Your task to perform on an android device: Open Chrome and go to the settings page Image 0: 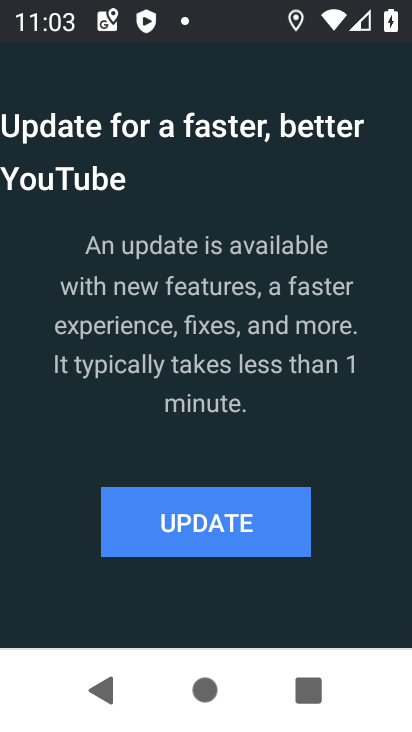
Step 0: press home button
Your task to perform on an android device: Open Chrome and go to the settings page Image 1: 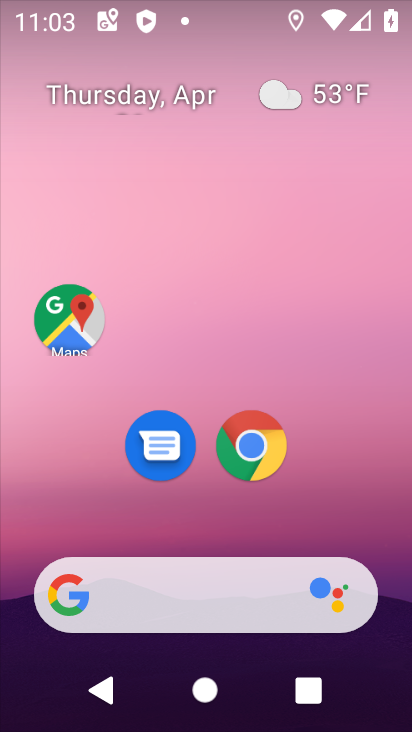
Step 1: drag from (226, 575) to (324, 51)
Your task to perform on an android device: Open Chrome and go to the settings page Image 2: 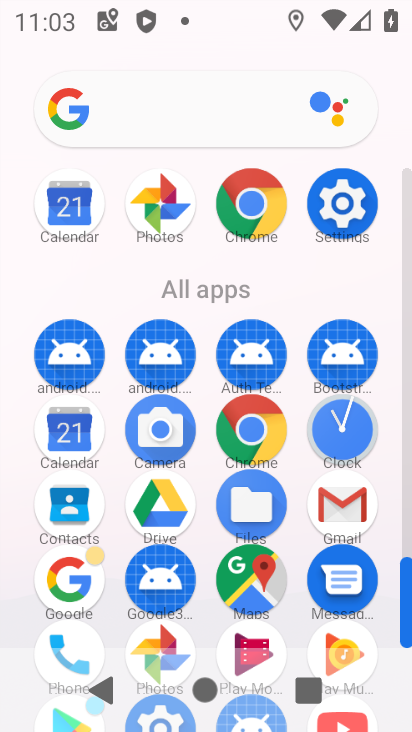
Step 2: click (260, 215)
Your task to perform on an android device: Open Chrome and go to the settings page Image 3: 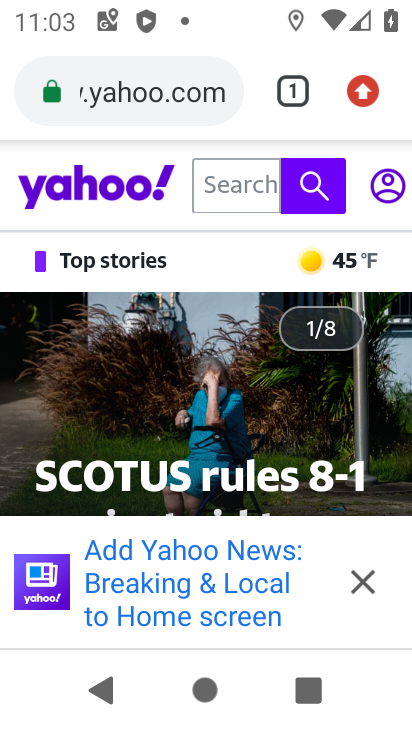
Step 3: click (358, 112)
Your task to perform on an android device: Open Chrome and go to the settings page Image 4: 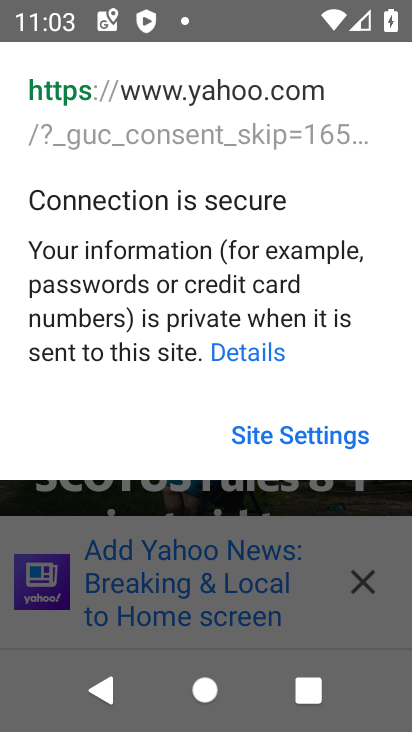
Step 4: press back button
Your task to perform on an android device: Open Chrome and go to the settings page Image 5: 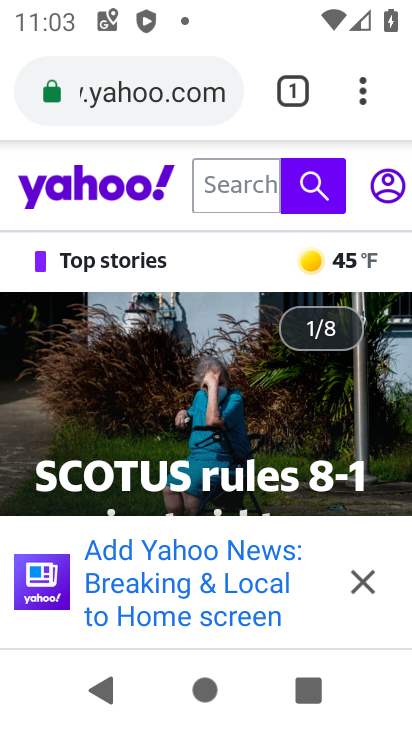
Step 5: click (356, 105)
Your task to perform on an android device: Open Chrome and go to the settings page Image 6: 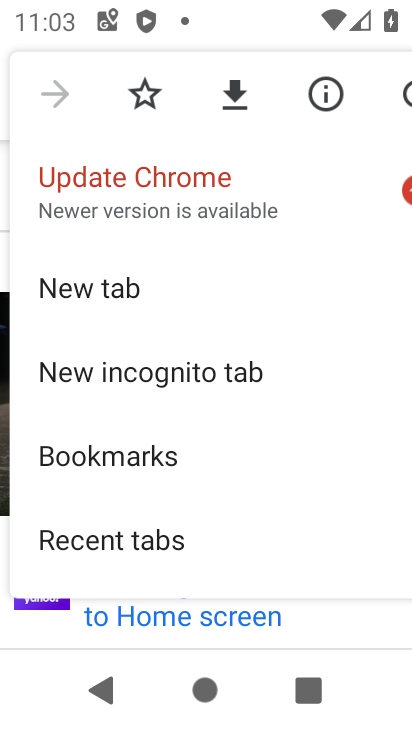
Step 6: drag from (223, 545) to (406, 17)
Your task to perform on an android device: Open Chrome and go to the settings page Image 7: 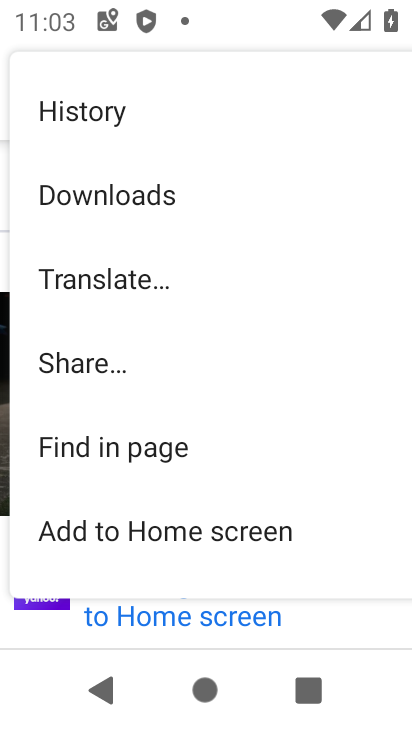
Step 7: drag from (163, 479) to (358, 80)
Your task to perform on an android device: Open Chrome and go to the settings page Image 8: 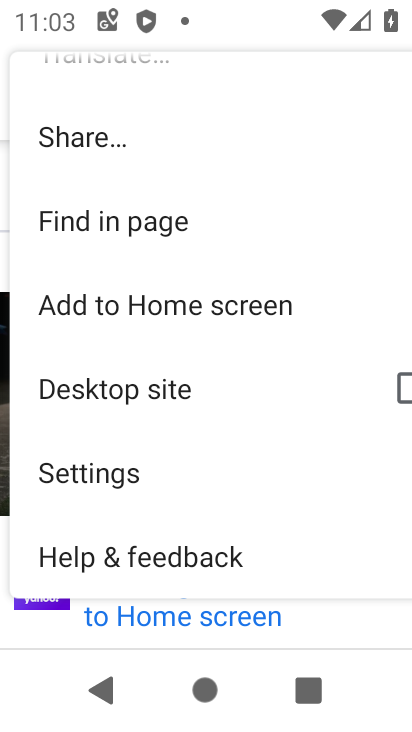
Step 8: click (120, 474)
Your task to perform on an android device: Open Chrome and go to the settings page Image 9: 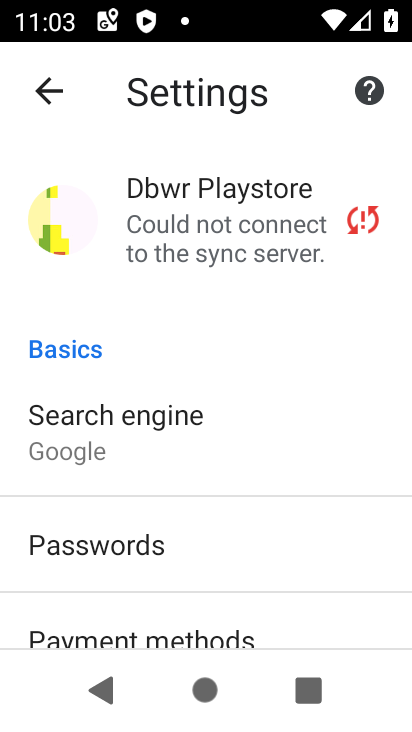
Step 9: task complete